Your task to perform on an android device: add a contact in the contacts app Image 0: 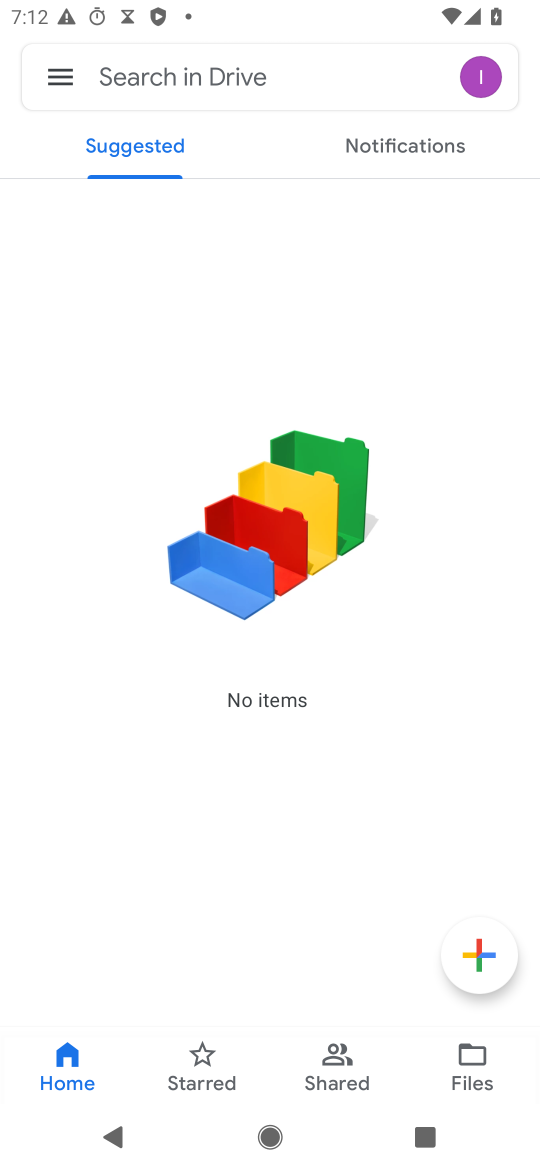
Step 0: press home button
Your task to perform on an android device: add a contact in the contacts app Image 1: 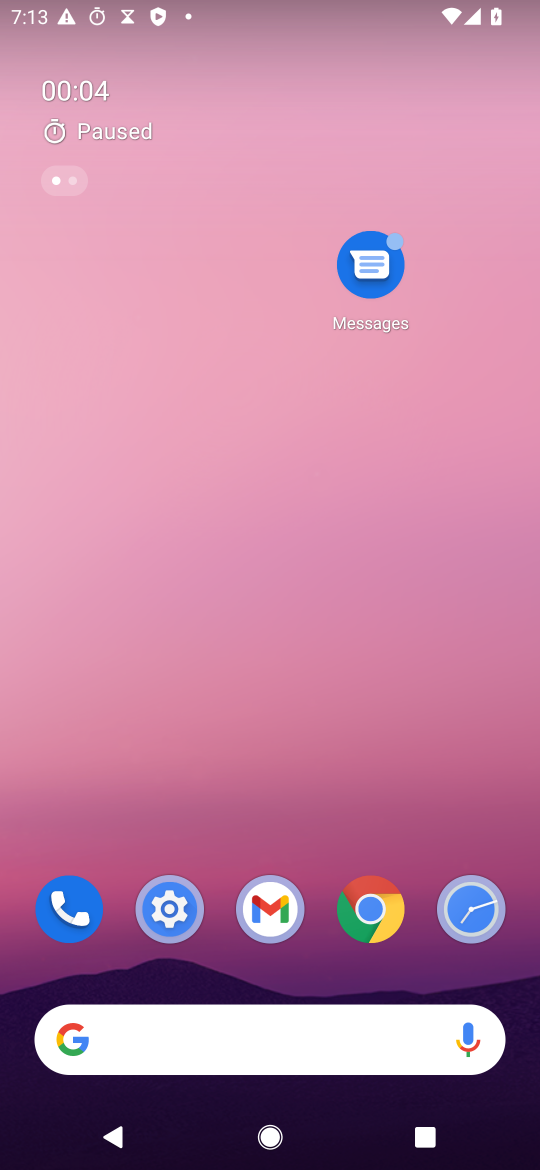
Step 1: drag from (269, 1036) to (417, 305)
Your task to perform on an android device: add a contact in the contacts app Image 2: 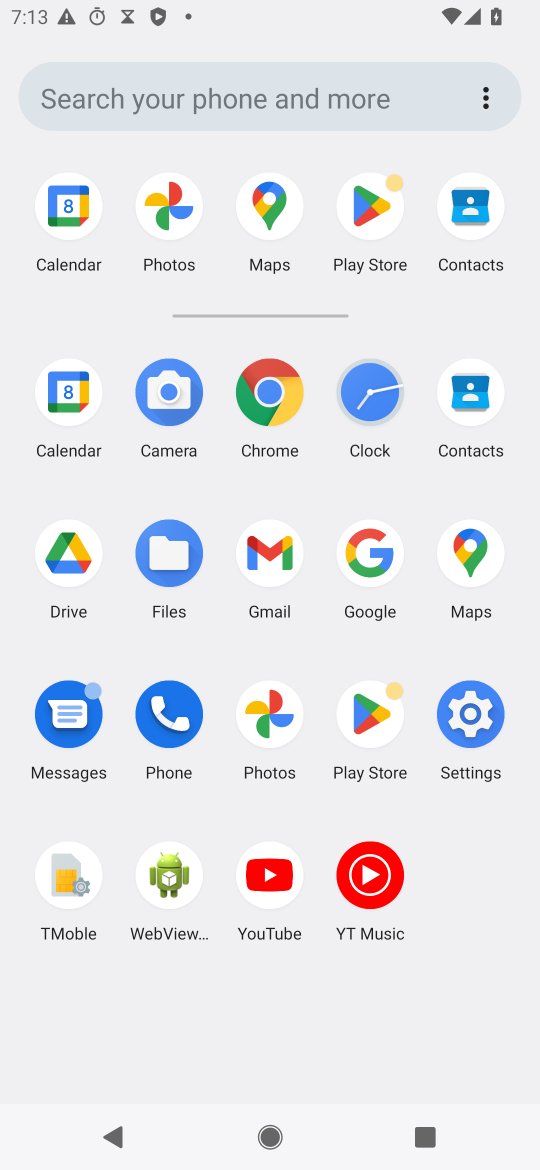
Step 2: click (477, 403)
Your task to perform on an android device: add a contact in the contacts app Image 3: 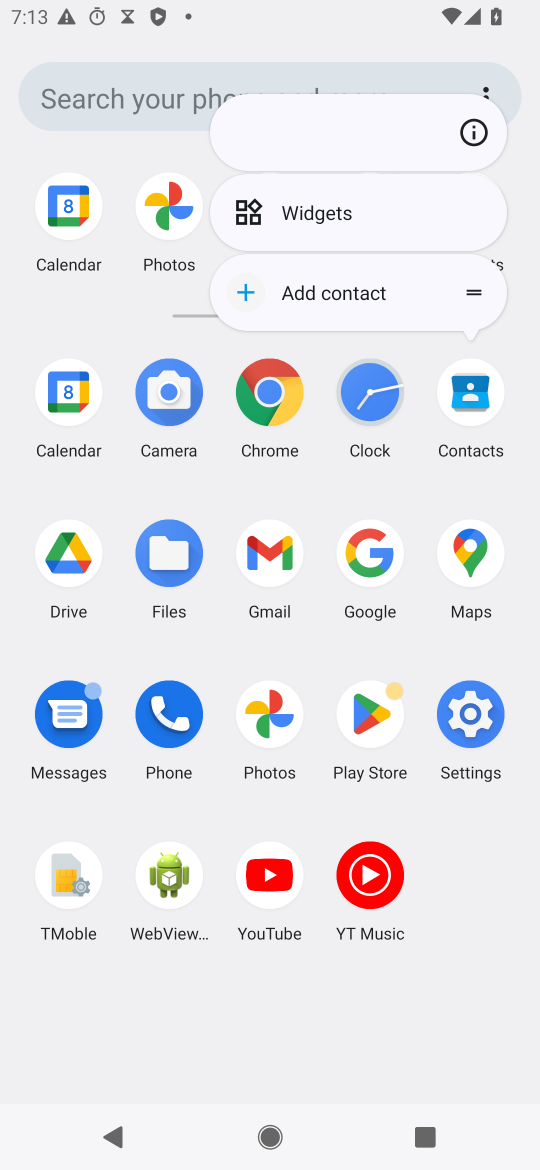
Step 3: click (480, 403)
Your task to perform on an android device: add a contact in the contacts app Image 4: 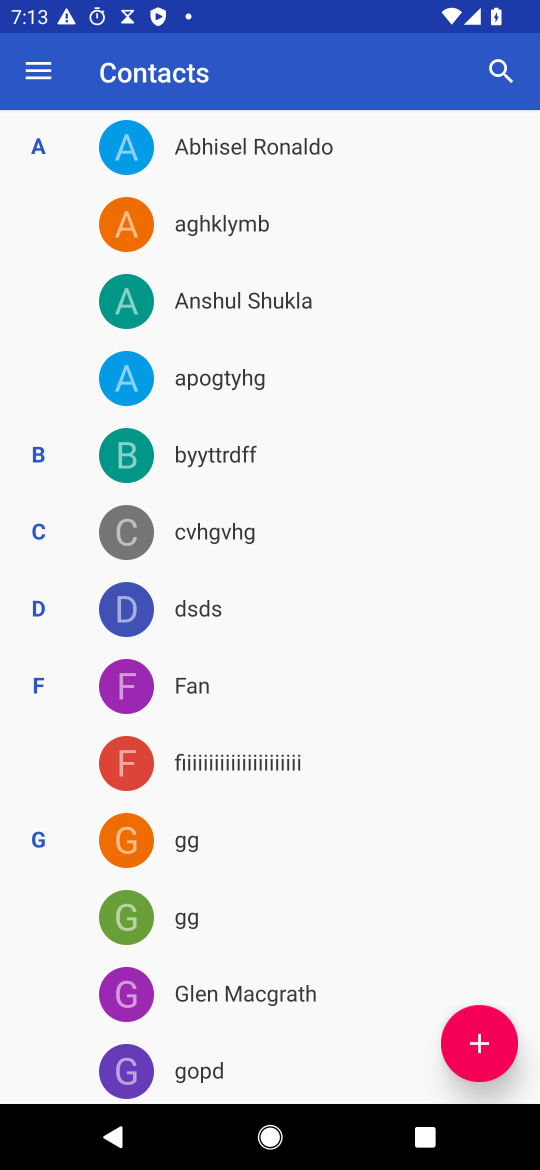
Step 4: click (488, 1046)
Your task to perform on an android device: add a contact in the contacts app Image 5: 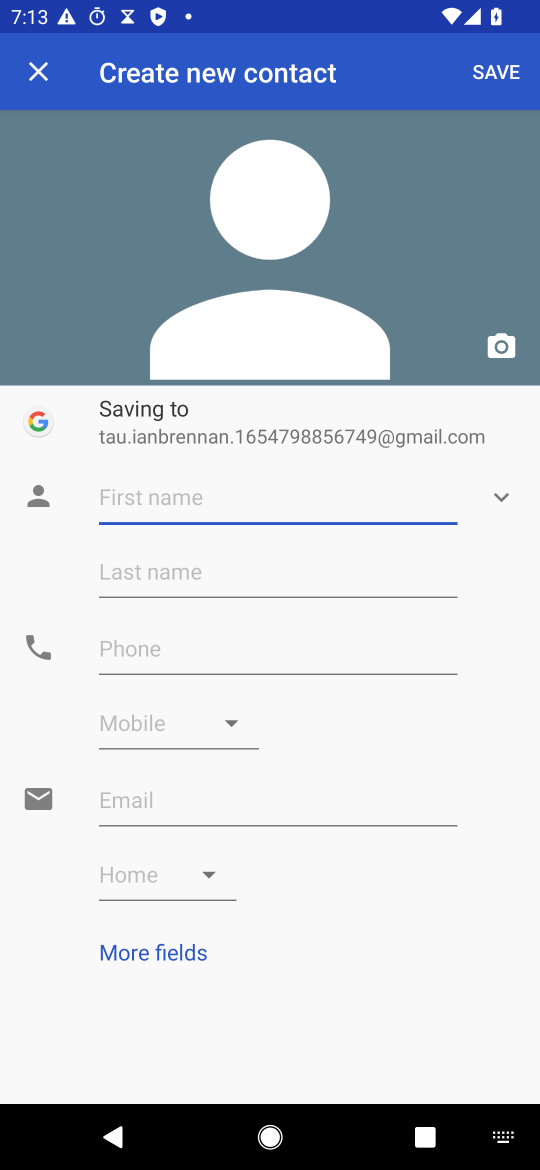
Step 5: type "mwoirytg"
Your task to perform on an android device: add a contact in the contacts app Image 6: 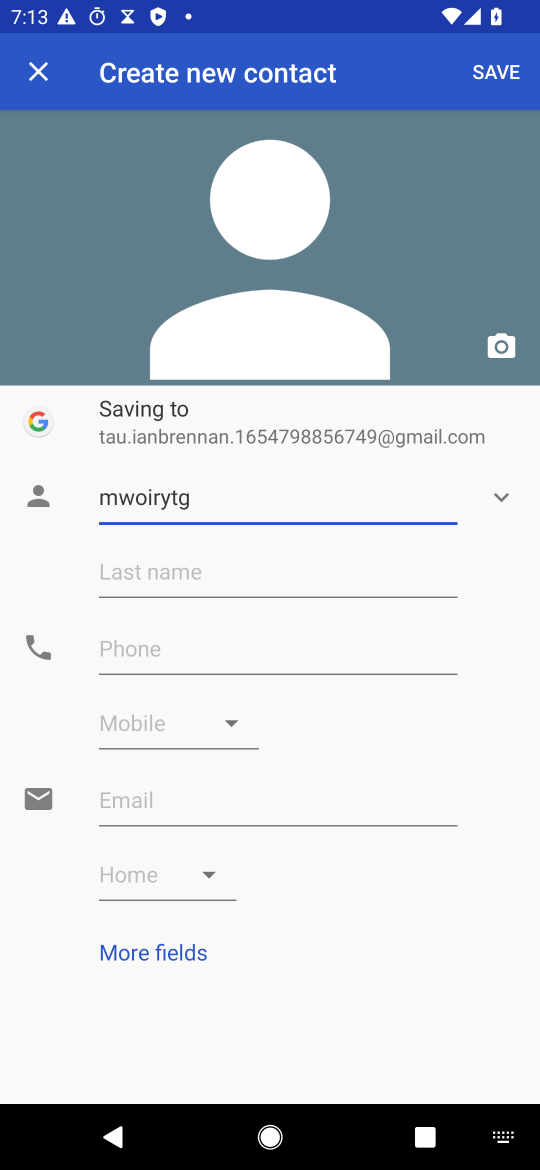
Step 6: click (149, 651)
Your task to perform on an android device: add a contact in the contacts app Image 7: 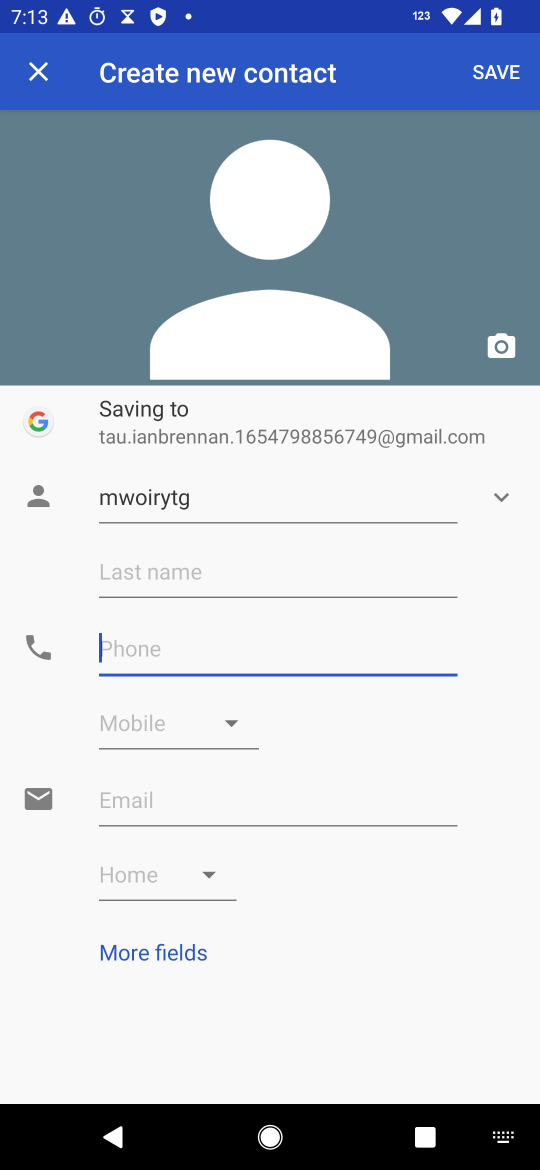
Step 7: type "84562829745"
Your task to perform on an android device: add a contact in the contacts app Image 8: 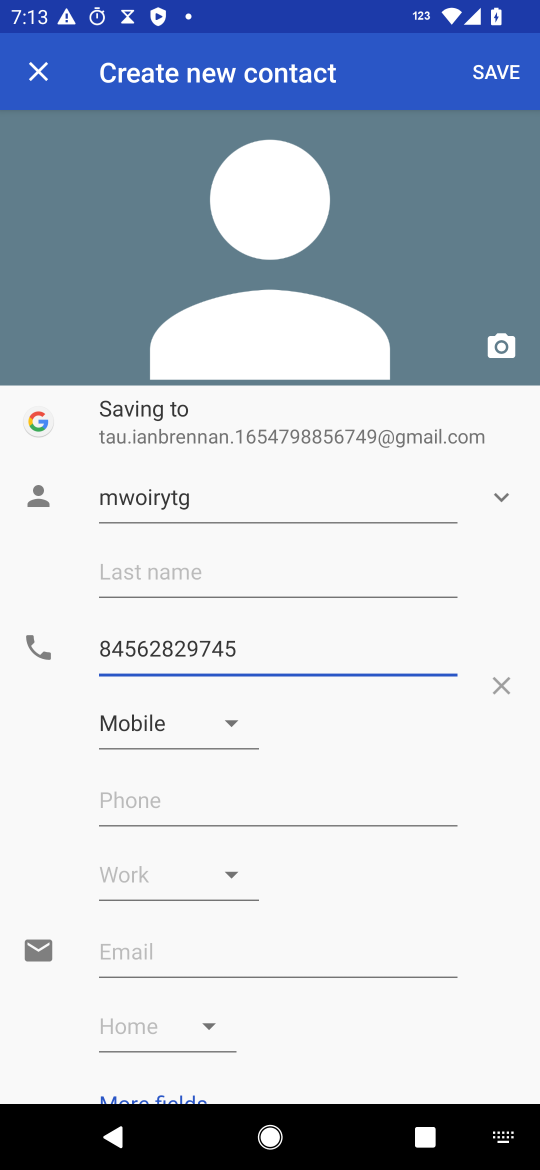
Step 8: click (490, 69)
Your task to perform on an android device: add a contact in the contacts app Image 9: 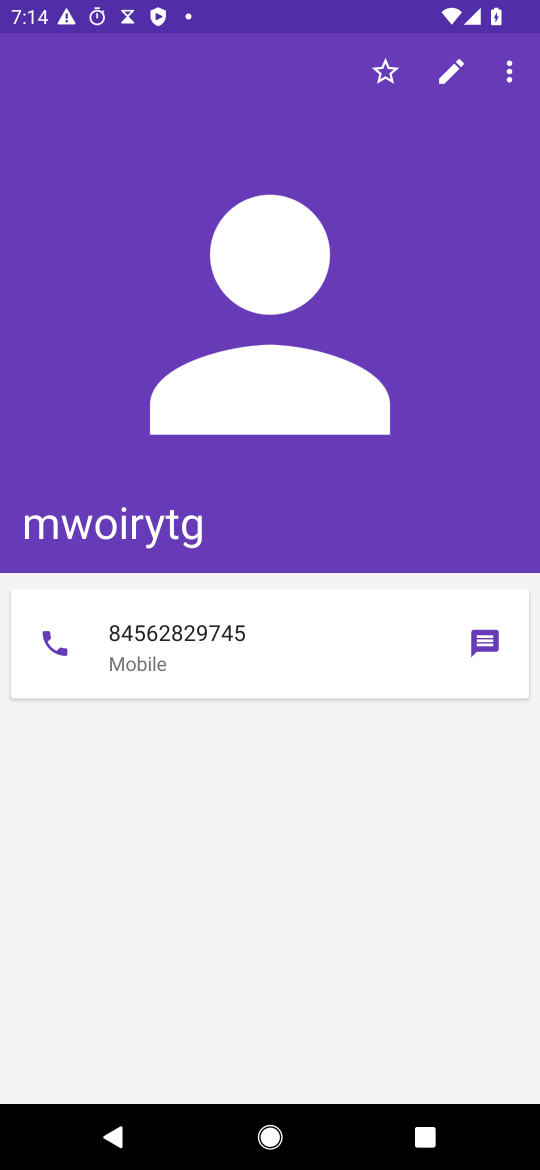
Step 9: task complete